Your task to perform on an android device: open a bookmark in the chrome app Image 0: 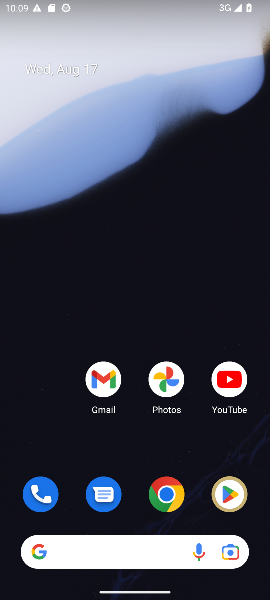
Step 0: click (154, 499)
Your task to perform on an android device: open a bookmark in the chrome app Image 1: 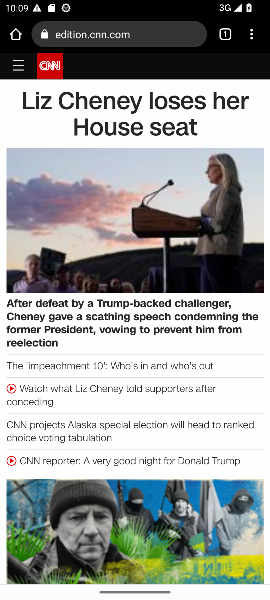
Step 1: task complete